Your task to perform on an android device: turn smart compose on in the gmail app Image 0: 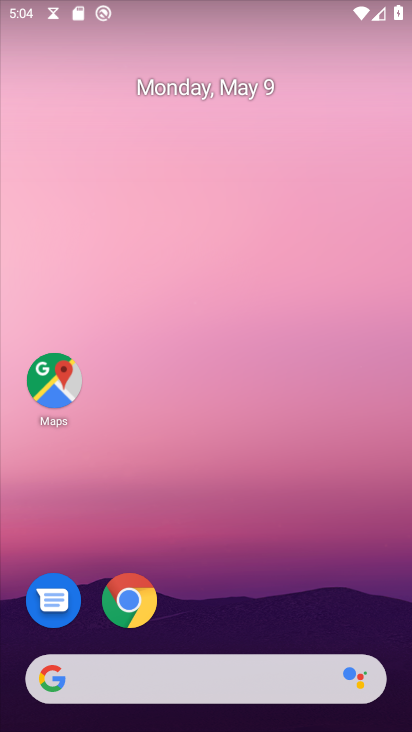
Step 0: drag from (305, 672) to (264, 11)
Your task to perform on an android device: turn smart compose on in the gmail app Image 1: 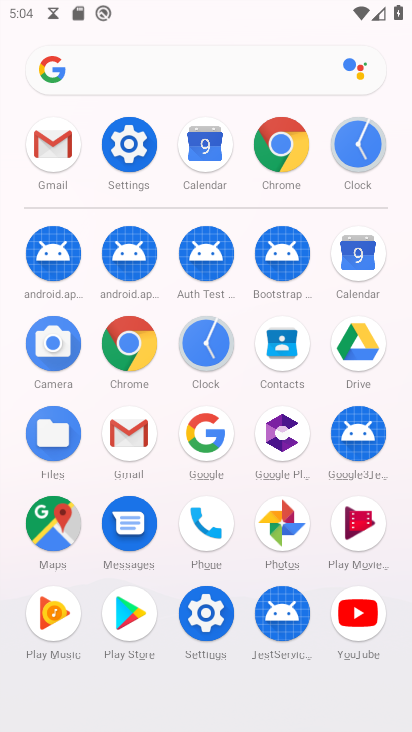
Step 1: click (138, 445)
Your task to perform on an android device: turn smart compose on in the gmail app Image 2: 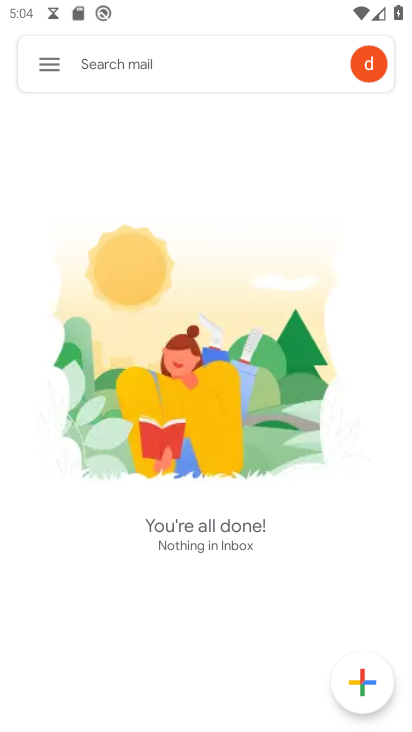
Step 2: click (57, 58)
Your task to perform on an android device: turn smart compose on in the gmail app Image 3: 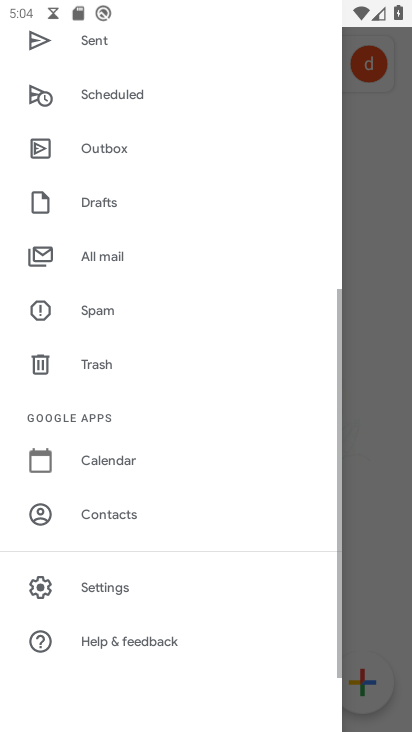
Step 3: click (111, 589)
Your task to perform on an android device: turn smart compose on in the gmail app Image 4: 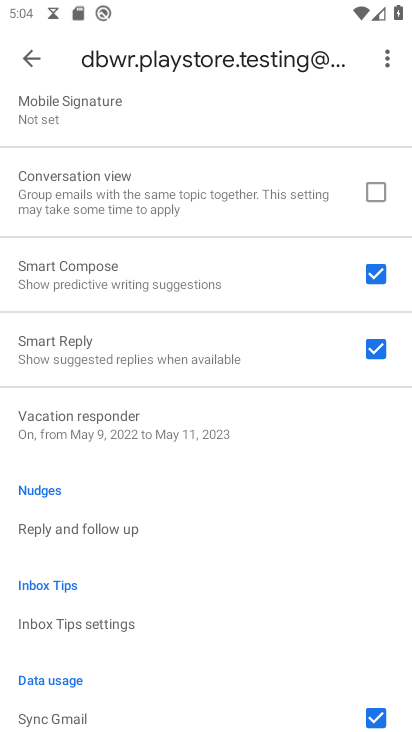
Step 4: task complete